Your task to perform on an android device: Search for seafood restaurants on Google Maps Image 0: 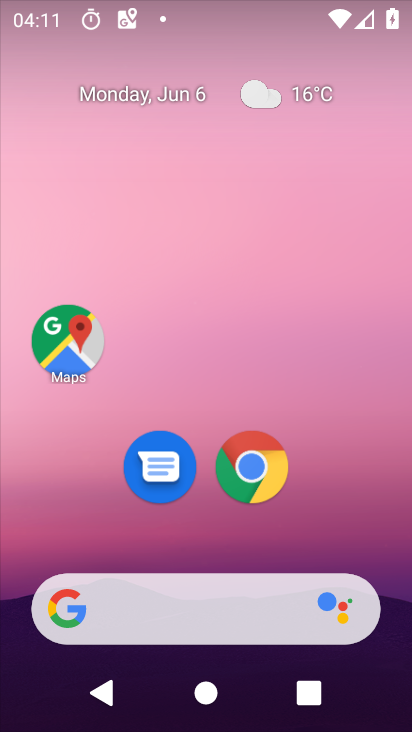
Step 0: press home button
Your task to perform on an android device: Search for seafood restaurants on Google Maps Image 1: 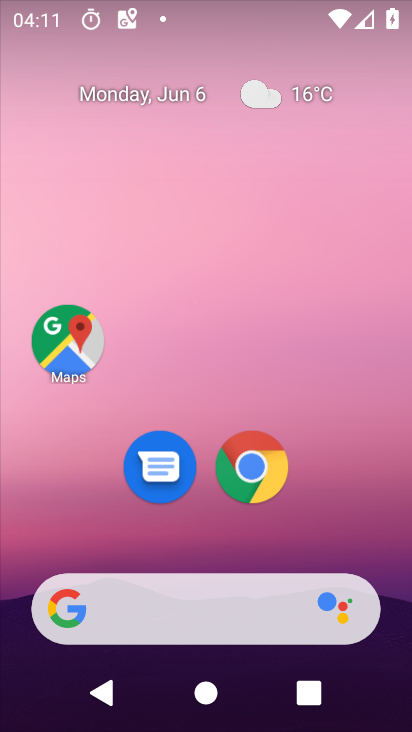
Step 1: click (67, 337)
Your task to perform on an android device: Search for seafood restaurants on Google Maps Image 2: 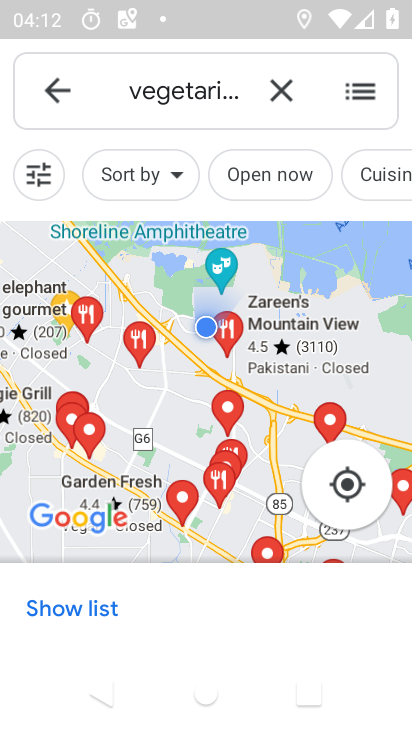
Step 2: click (278, 89)
Your task to perform on an android device: Search for seafood restaurants on Google Maps Image 3: 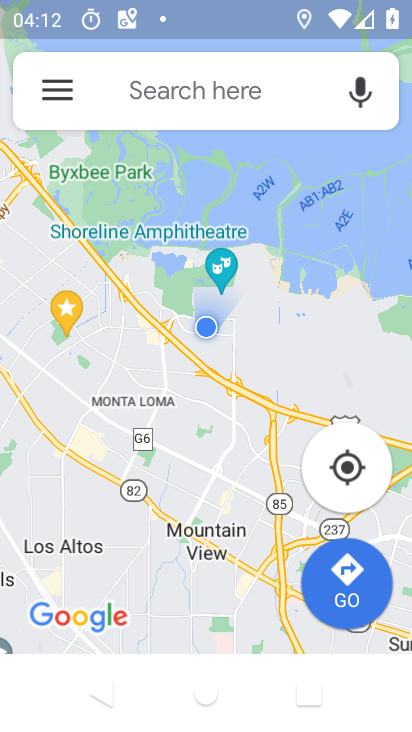
Step 3: click (163, 79)
Your task to perform on an android device: Search for seafood restaurants on Google Maps Image 4: 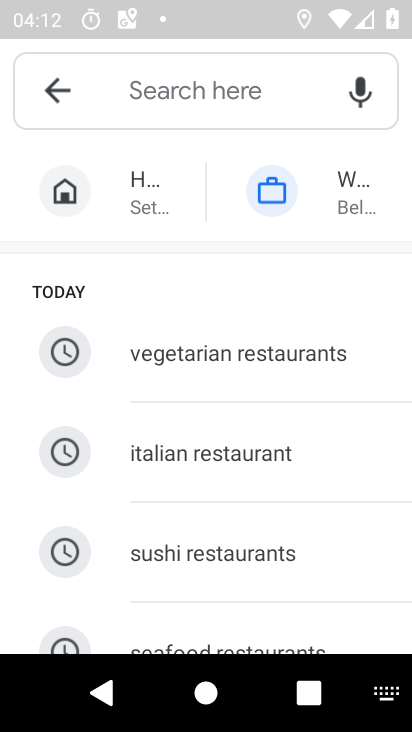
Step 4: type "seafood"
Your task to perform on an android device: Search for seafood restaurants on Google Maps Image 5: 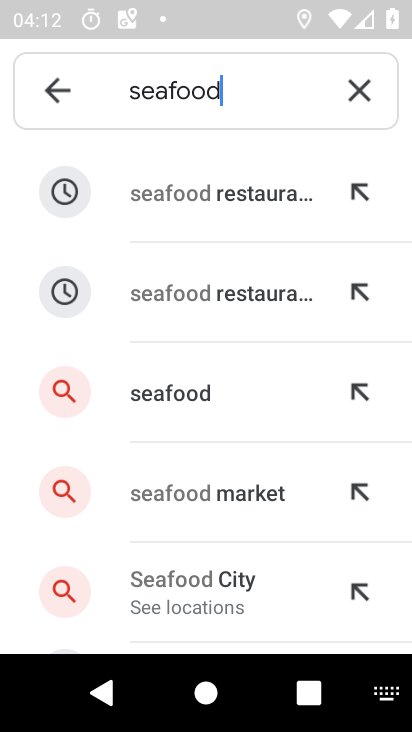
Step 5: click (208, 206)
Your task to perform on an android device: Search for seafood restaurants on Google Maps Image 6: 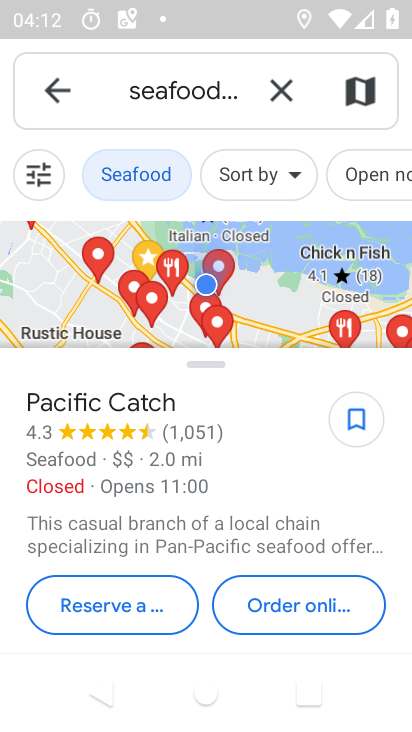
Step 6: task complete